Your task to perform on an android device: Open my contact list Image 0: 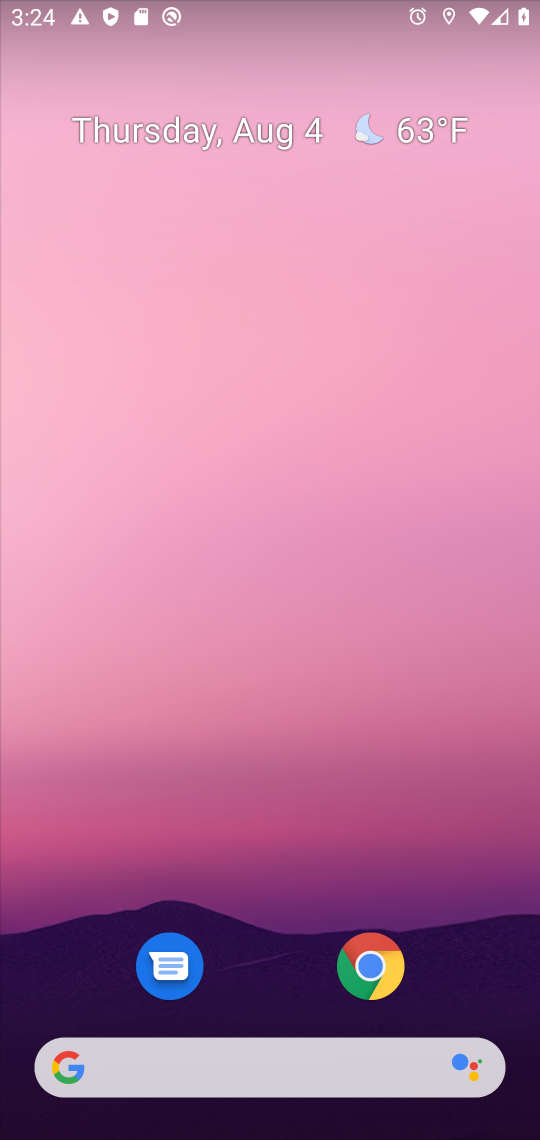
Step 0: drag from (292, 998) to (334, 306)
Your task to perform on an android device: Open my contact list Image 1: 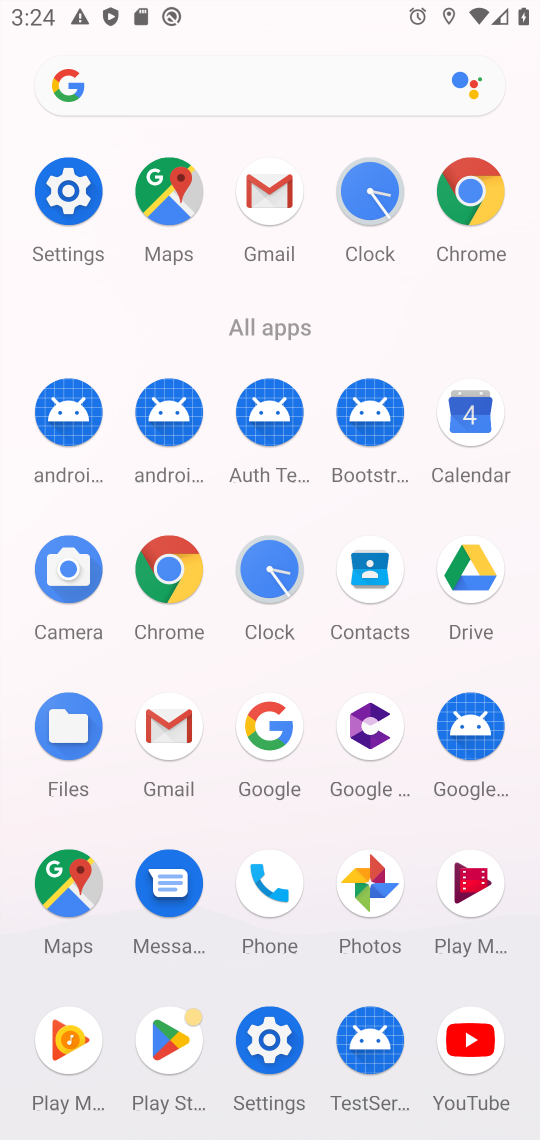
Step 1: click (378, 579)
Your task to perform on an android device: Open my contact list Image 2: 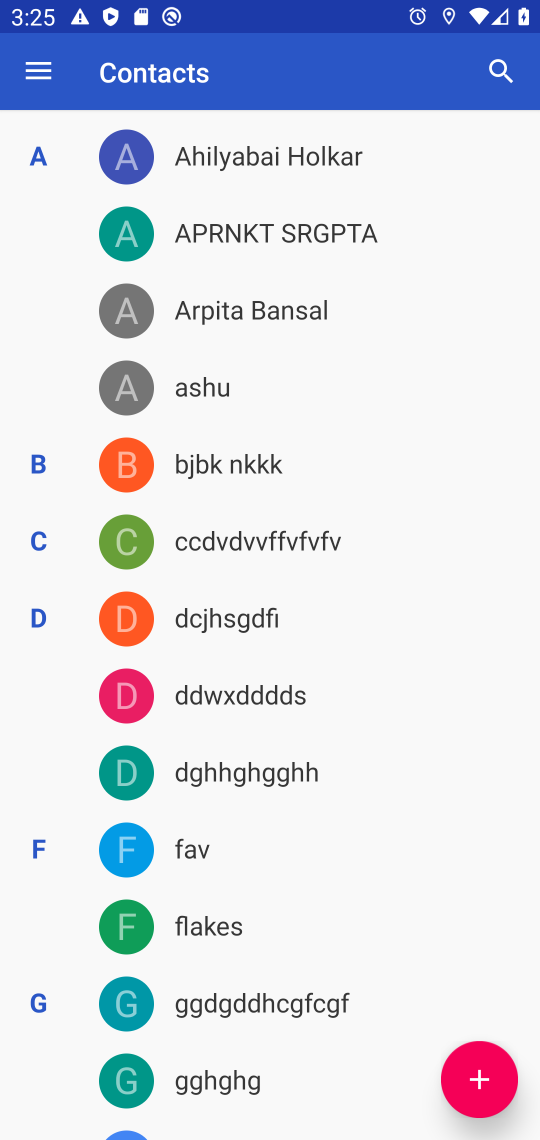
Step 2: task complete